Your task to perform on an android device: see tabs open on other devices in the chrome app Image 0: 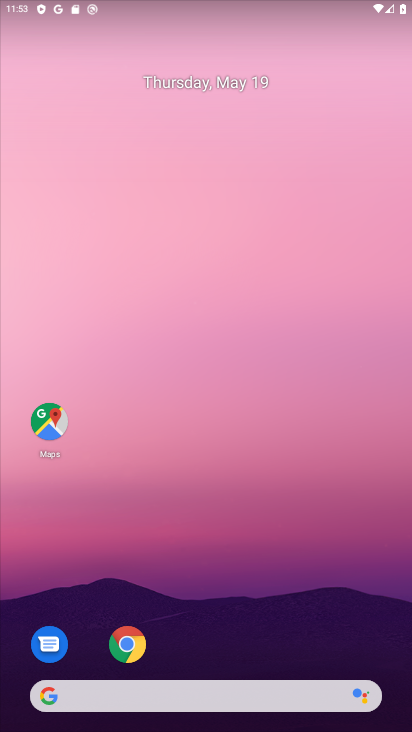
Step 0: click (123, 646)
Your task to perform on an android device: see tabs open on other devices in the chrome app Image 1: 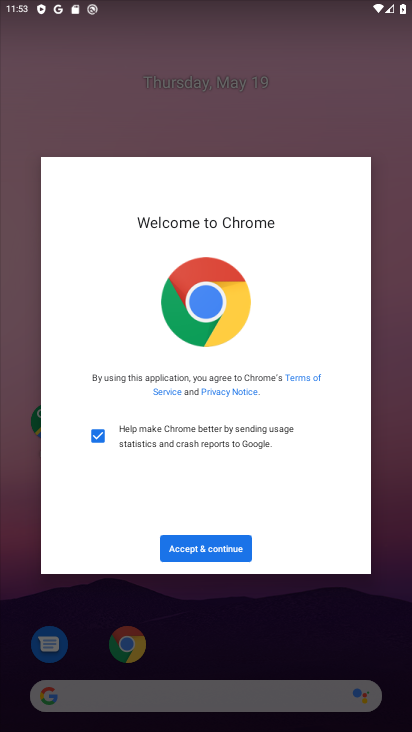
Step 1: click (212, 550)
Your task to perform on an android device: see tabs open on other devices in the chrome app Image 2: 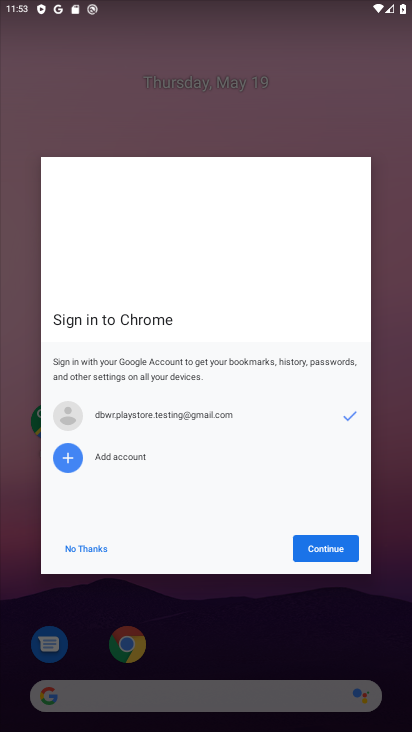
Step 2: click (339, 549)
Your task to perform on an android device: see tabs open on other devices in the chrome app Image 3: 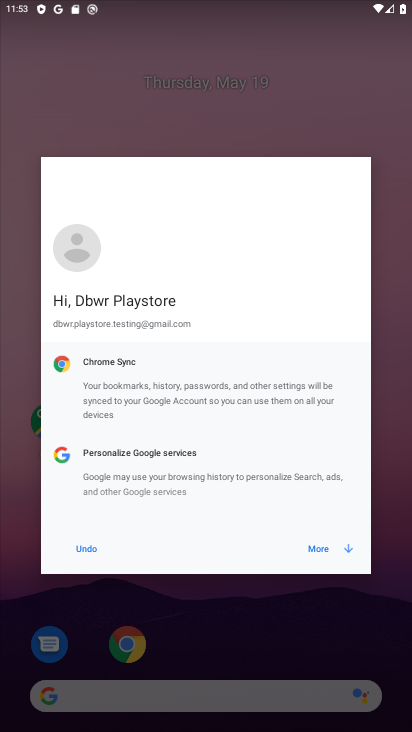
Step 3: click (339, 549)
Your task to perform on an android device: see tabs open on other devices in the chrome app Image 4: 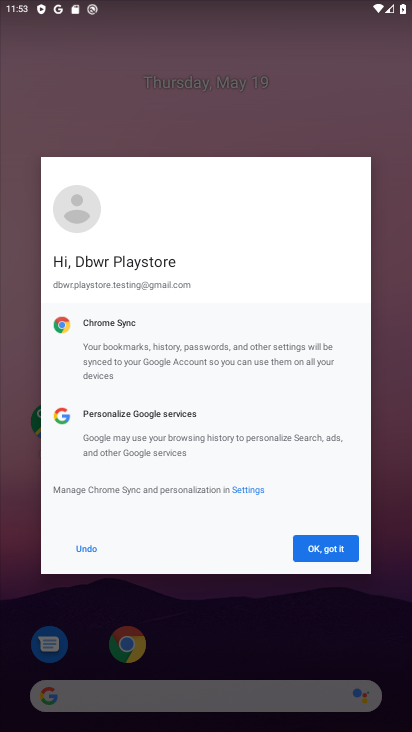
Step 4: click (328, 549)
Your task to perform on an android device: see tabs open on other devices in the chrome app Image 5: 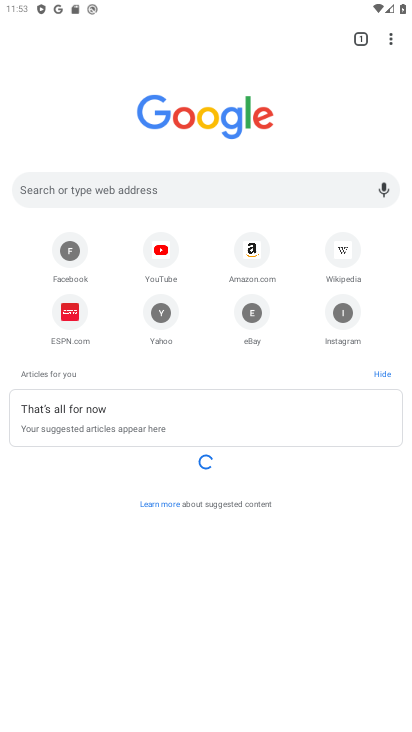
Step 5: click (389, 36)
Your task to perform on an android device: see tabs open on other devices in the chrome app Image 6: 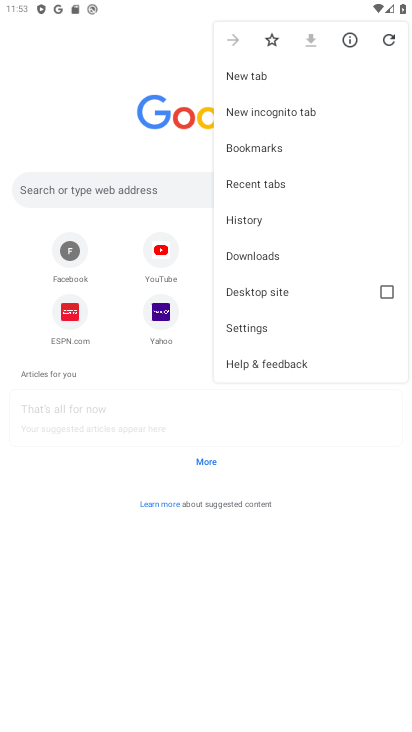
Step 6: click (251, 177)
Your task to perform on an android device: see tabs open on other devices in the chrome app Image 7: 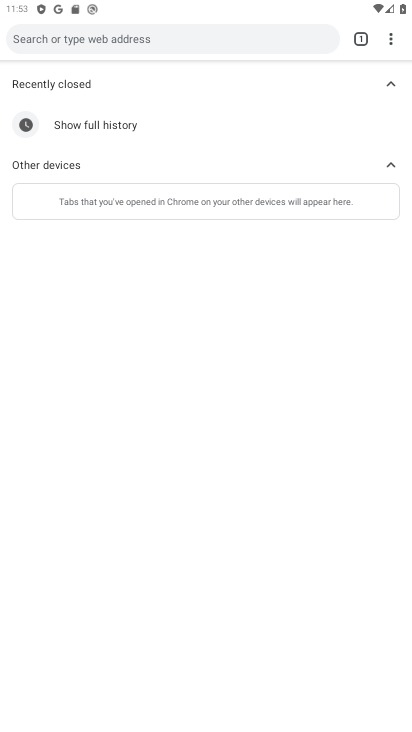
Step 7: task complete